Your task to perform on an android device: What's the weather? Image 0: 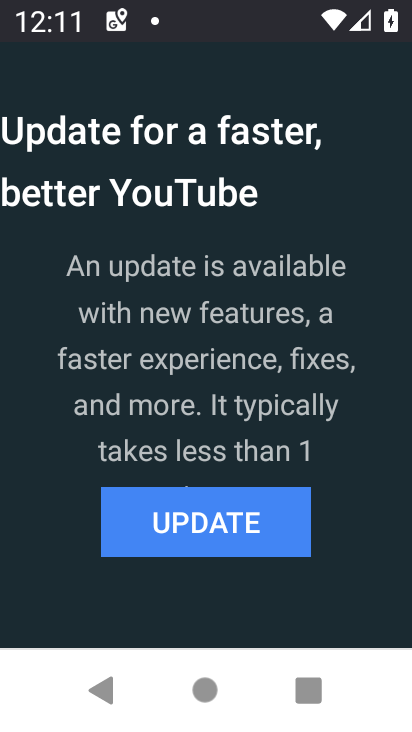
Step 0: press home button
Your task to perform on an android device: What's the weather? Image 1: 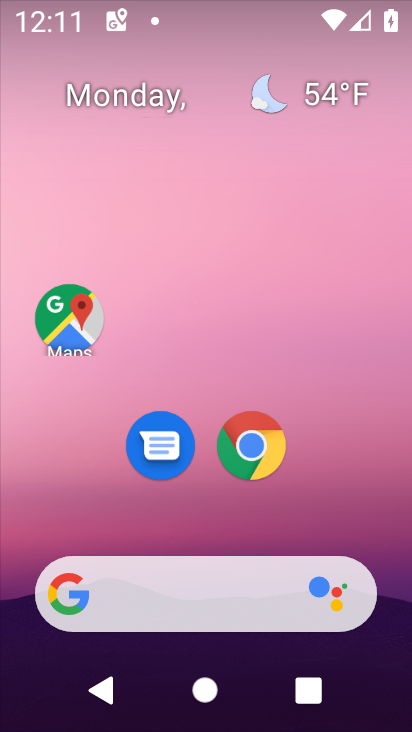
Step 1: drag from (378, 517) to (380, 118)
Your task to perform on an android device: What's the weather? Image 2: 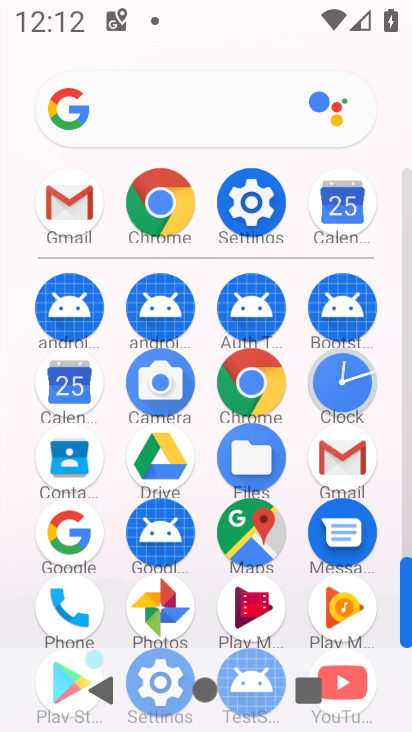
Step 2: drag from (300, 567) to (274, 287)
Your task to perform on an android device: What's the weather? Image 3: 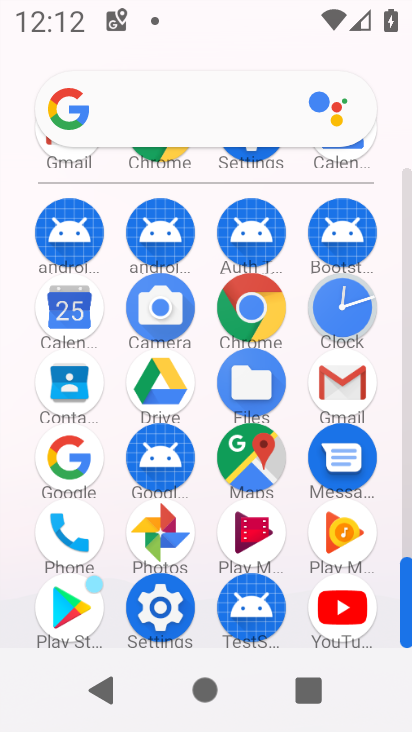
Step 3: click (268, 320)
Your task to perform on an android device: What's the weather? Image 4: 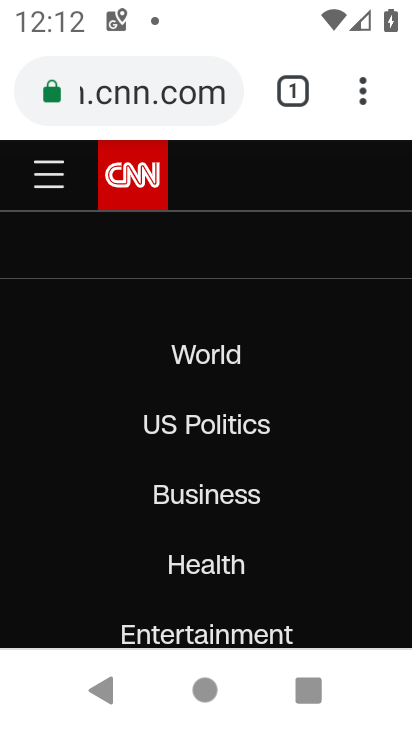
Step 4: click (300, 102)
Your task to perform on an android device: What's the weather? Image 5: 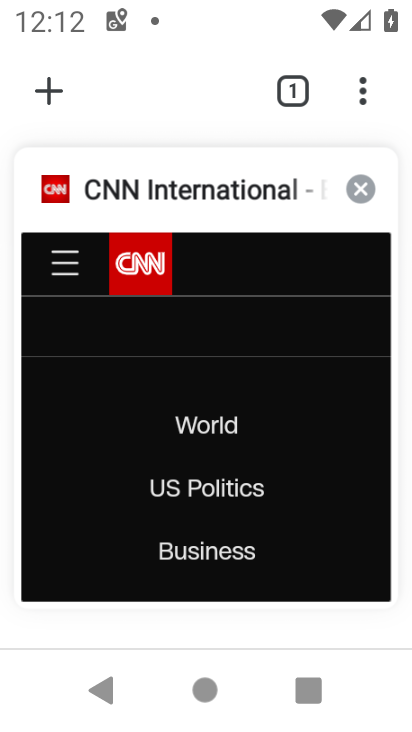
Step 5: click (47, 86)
Your task to perform on an android device: What's the weather? Image 6: 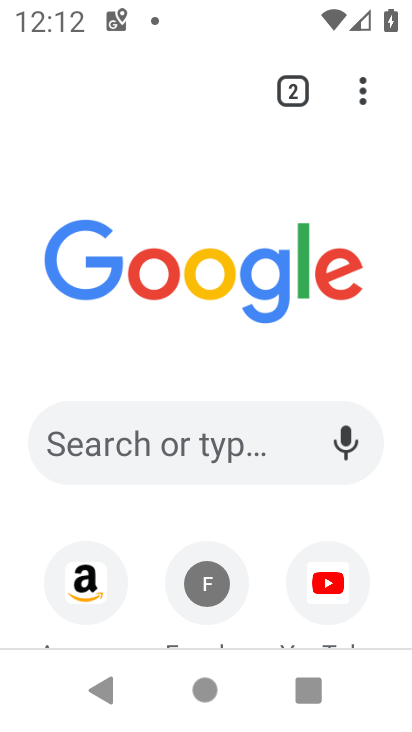
Step 6: click (198, 447)
Your task to perform on an android device: What's the weather? Image 7: 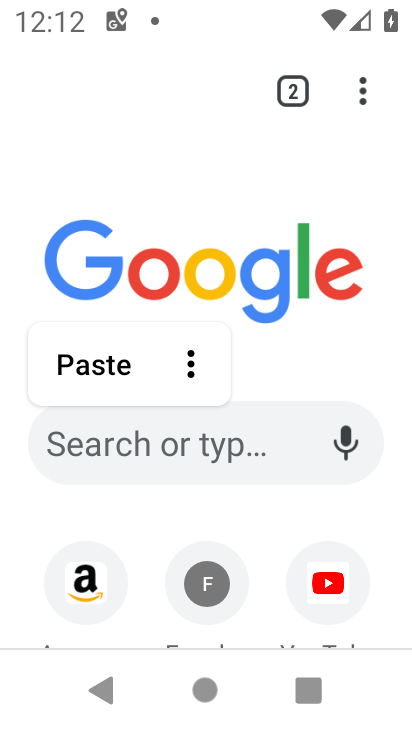
Step 7: type "what's the weather"
Your task to perform on an android device: What's the weather? Image 8: 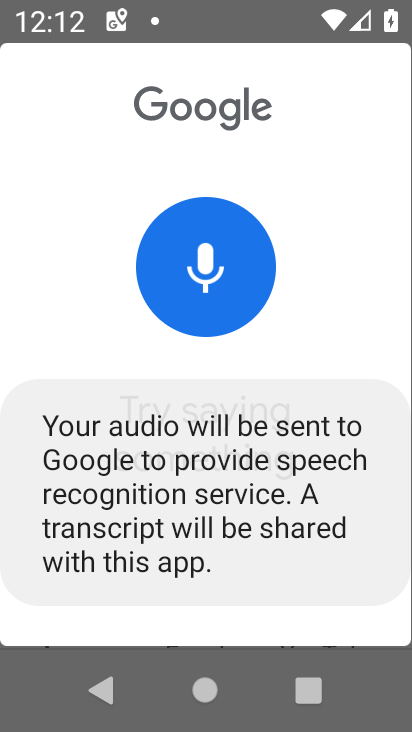
Step 8: click (104, 691)
Your task to perform on an android device: What's the weather? Image 9: 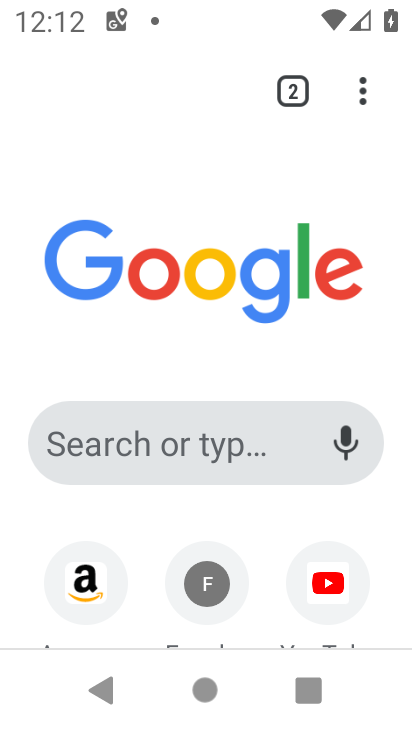
Step 9: click (191, 439)
Your task to perform on an android device: What's the weather? Image 10: 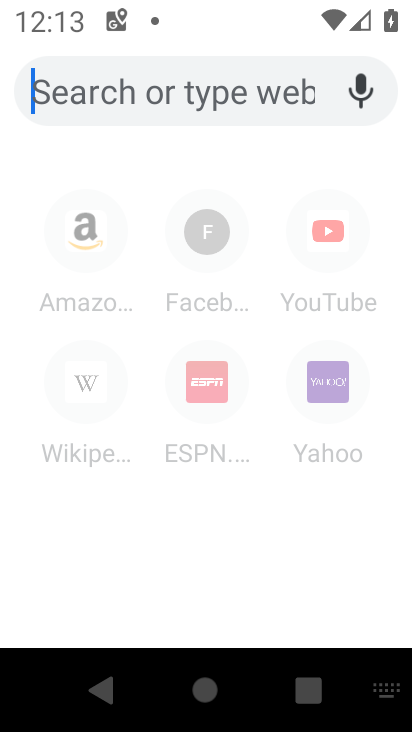
Step 10: type "what's the weather"
Your task to perform on an android device: What's the weather? Image 11: 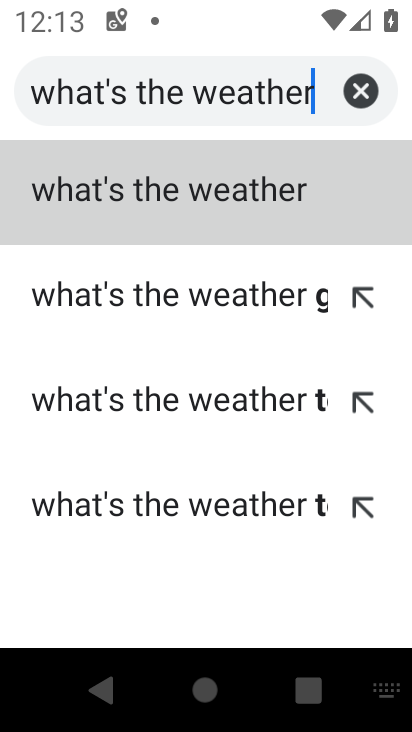
Step 11: click (99, 211)
Your task to perform on an android device: What's the weather? Image 12: 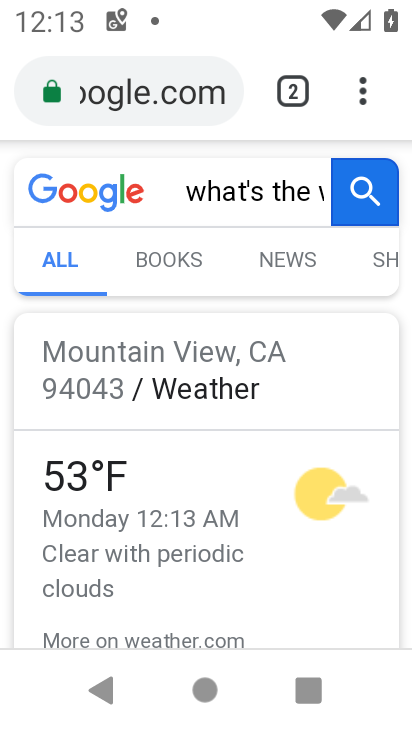
Step 12: task complete